Your task to perform on an android device: What is the news today? Image 0: 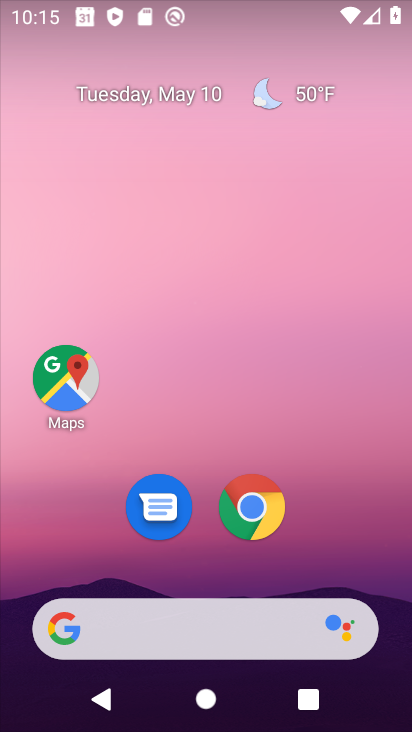
Step 0: drag from (300, 533) to (370, 77)
Your task to perform on an android device: What is the news today? Image 1: 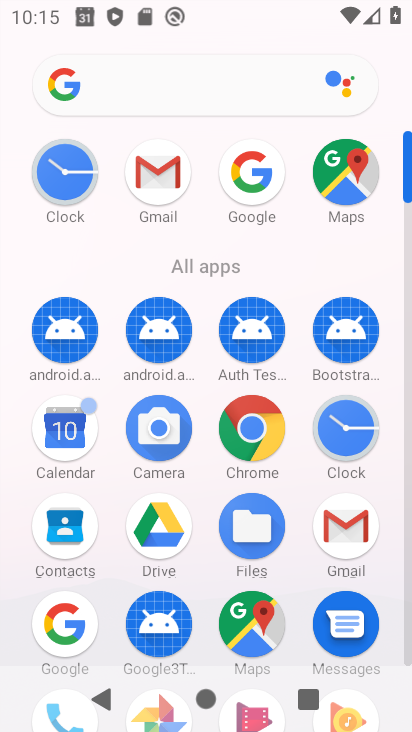
Step 1: click (66, 640)
Your task to perform on an android device: What is the news today? Image 2: 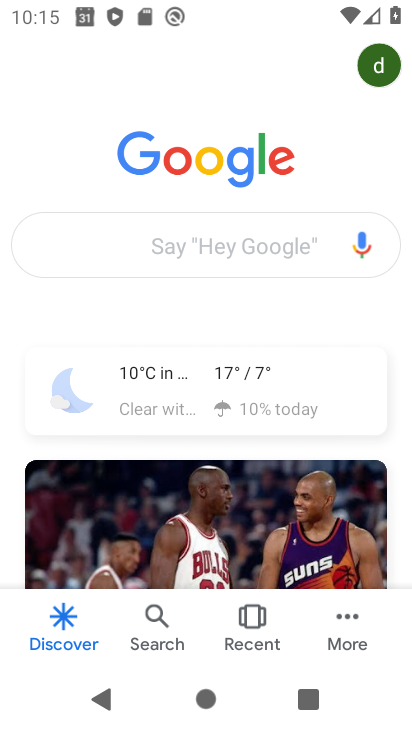
Step 2: click (211, 238)
Your task to perform on an android device: What is the news today? Image 3: 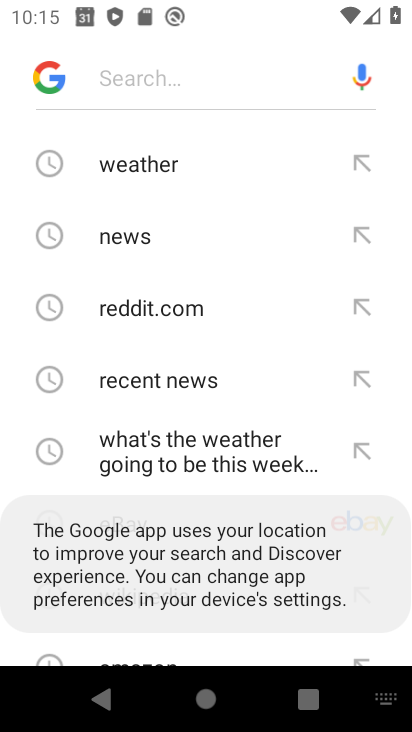
Step 3: click (211, 238)
Your task to perform on an android device: What is the news today? Image 4: 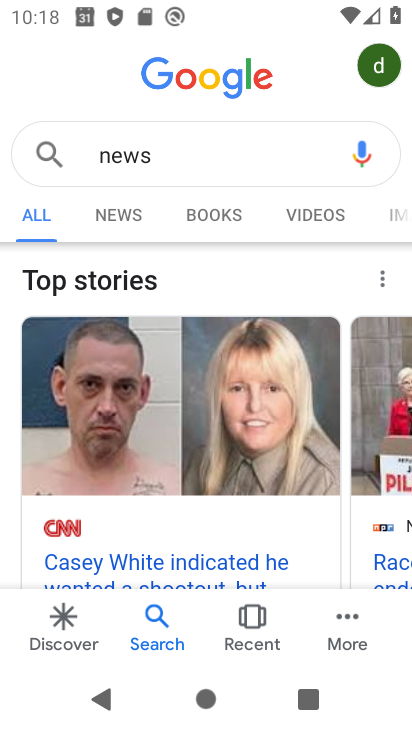
Step 4: task complete